Your task to perform on an android device: open app "DuckDuckGo Privacy Browser" Image 0: 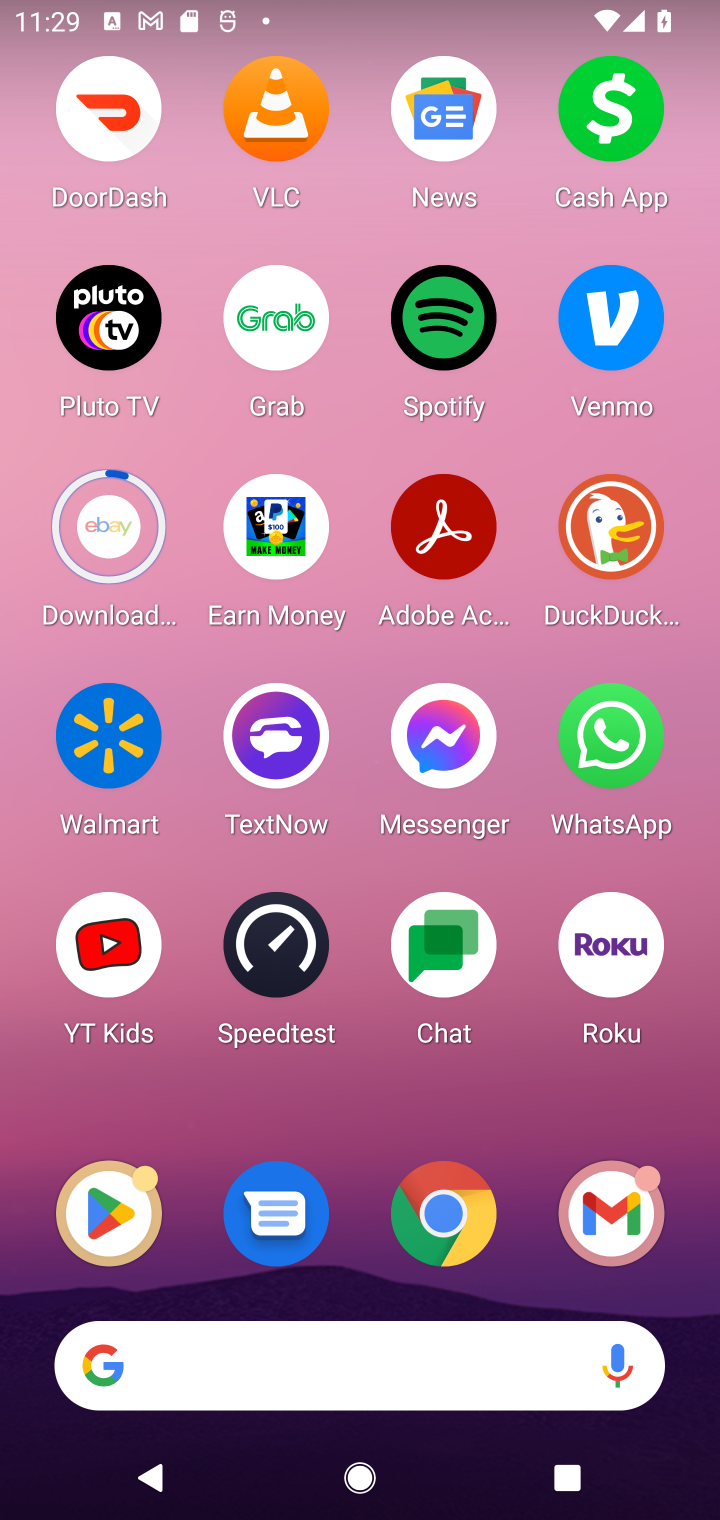
Step 0: click (123, 1193)
Your task to perform on an android device: open app "DuckDuckGo Privacy Browser" Image 1: 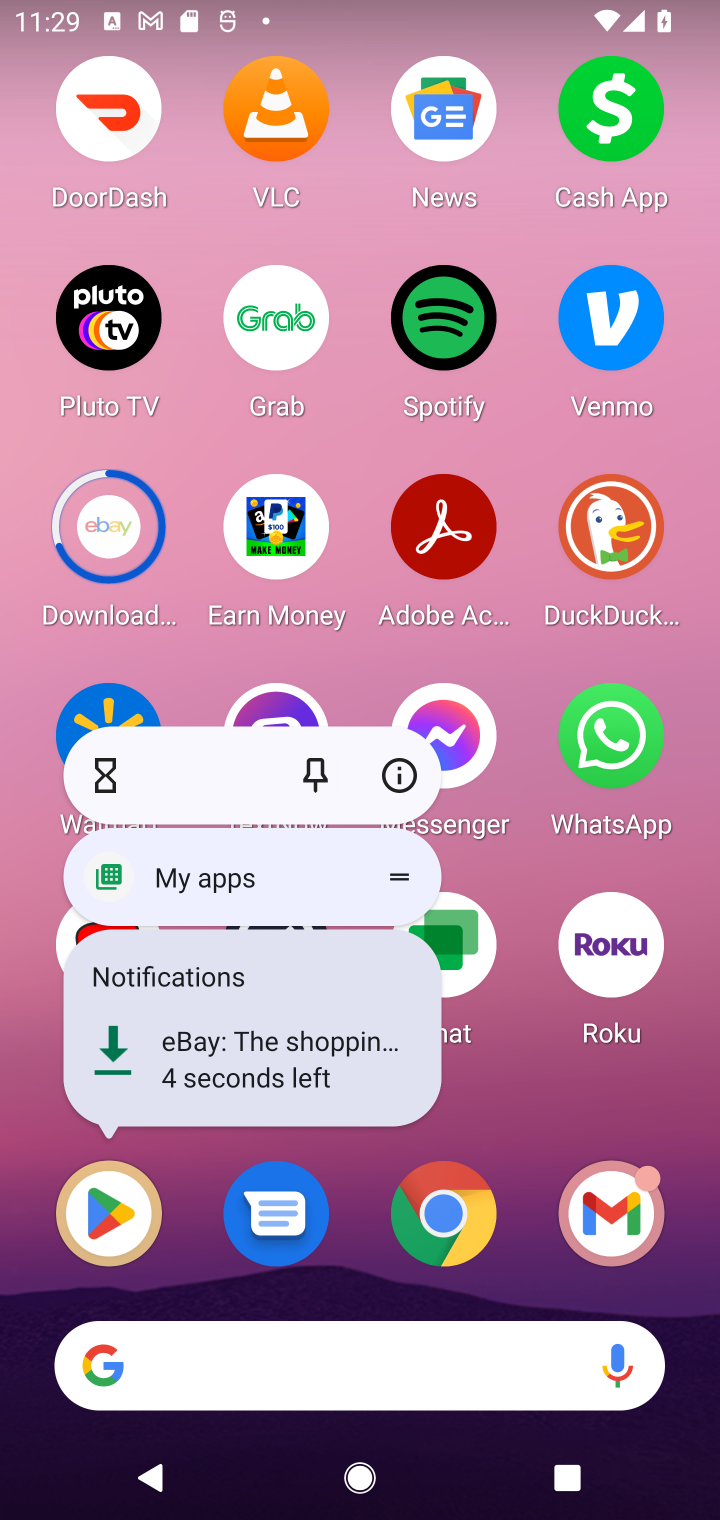
Step 1: click (99, 1213)
Your task to perform on an android device: open app "DuckDuckGo Privacy Browser" Image 2: 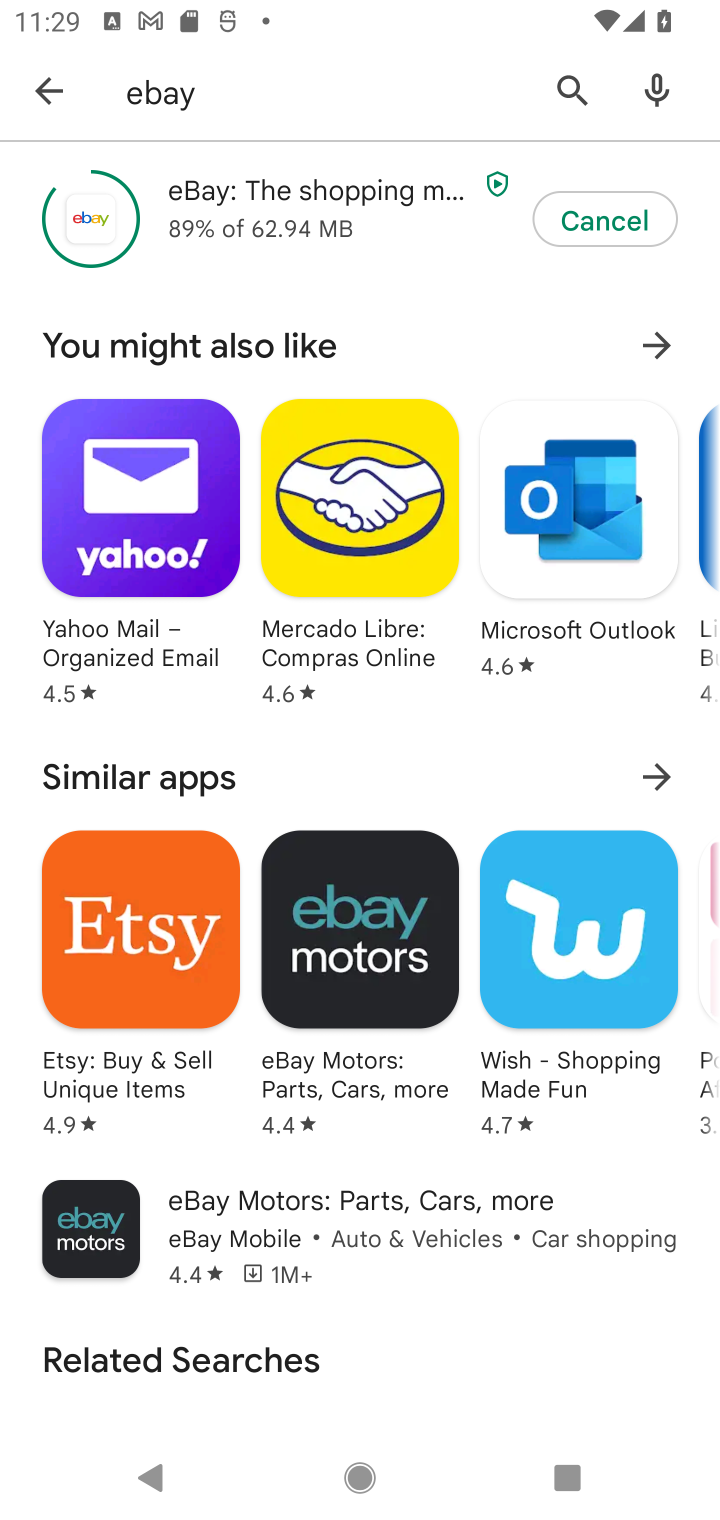
Step 2: click (53, 103)
Your task to perform on an android device: open app "DuckDuckGo Privacy Browser" Image 3: 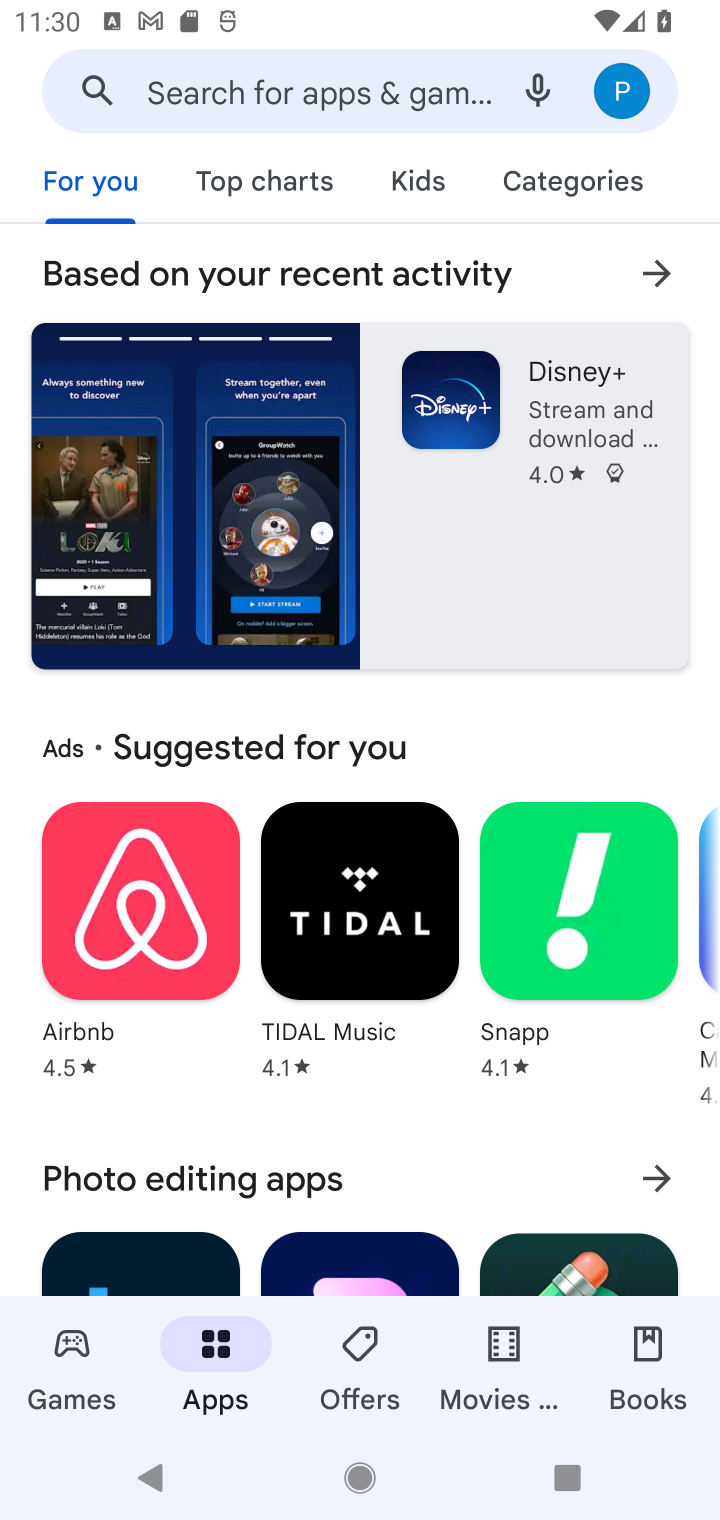
Step 3: click (320, 105)
Your task to perform on an android device: open app "DuckDuckGo Privacy Browser" Image 4: 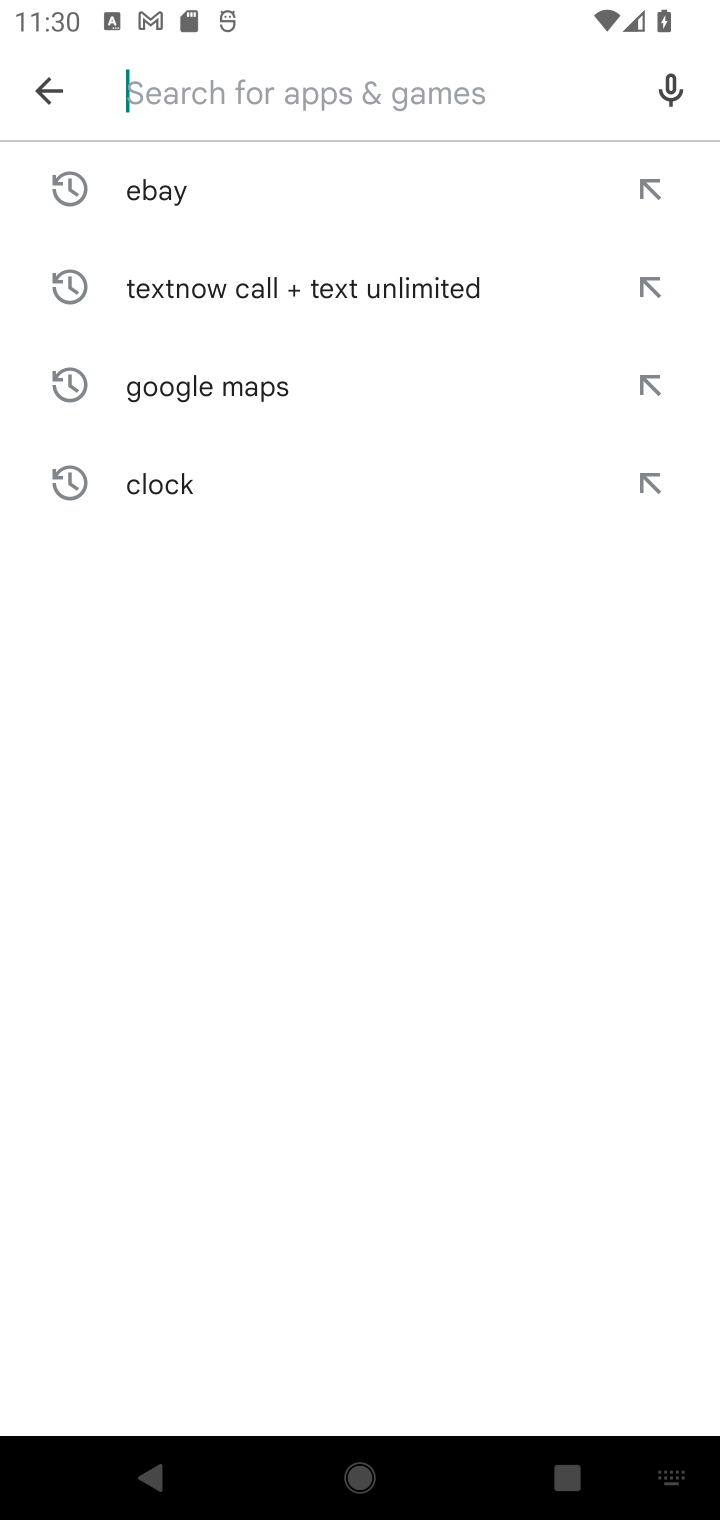
Step 4: type "DuckDuckGo Privacy Browser"
Your task to perform on an android device: open app "DuckDuckGo Privacy Browser" Image 5: 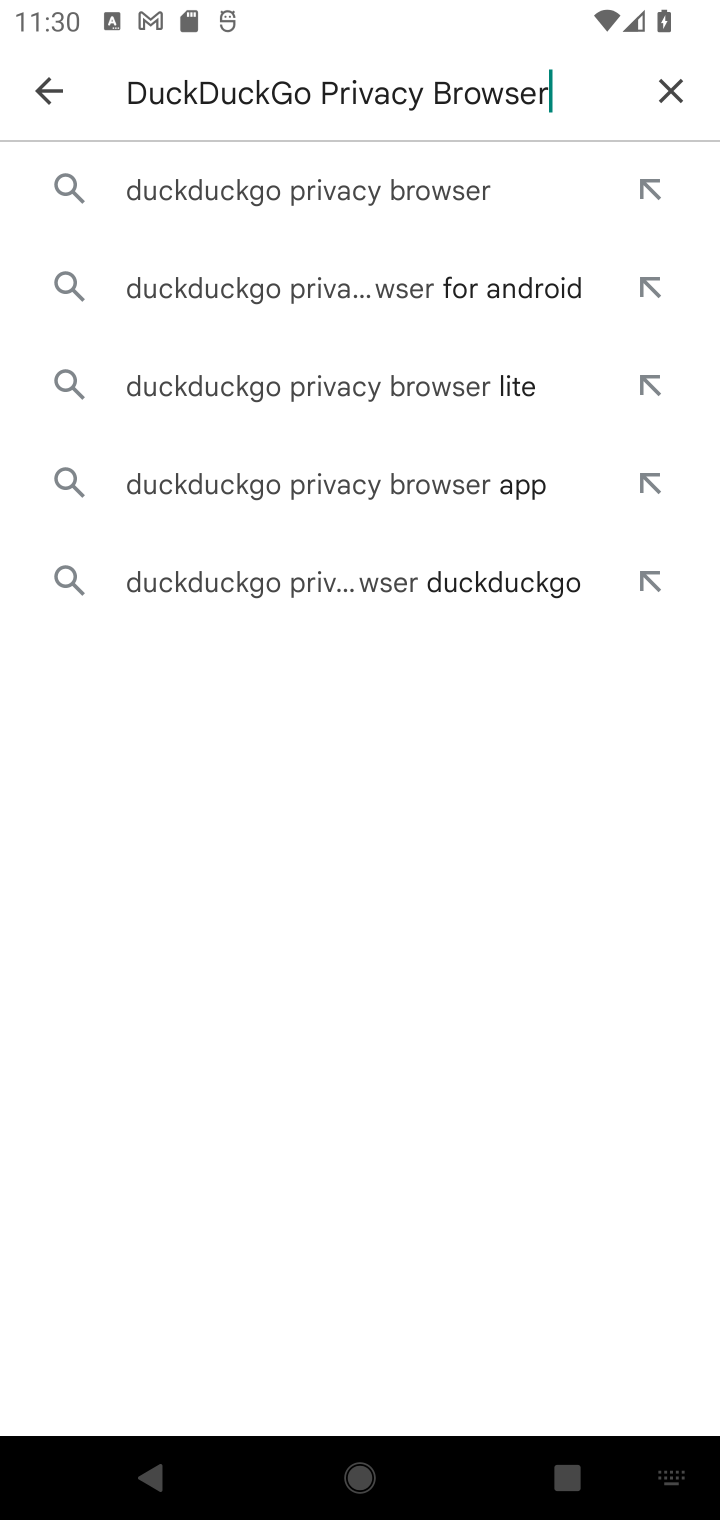
Step 5: click (260, 193)
Your task to perform on an android device: open app "DuckDuckGo Privacy Browser" Image 6: 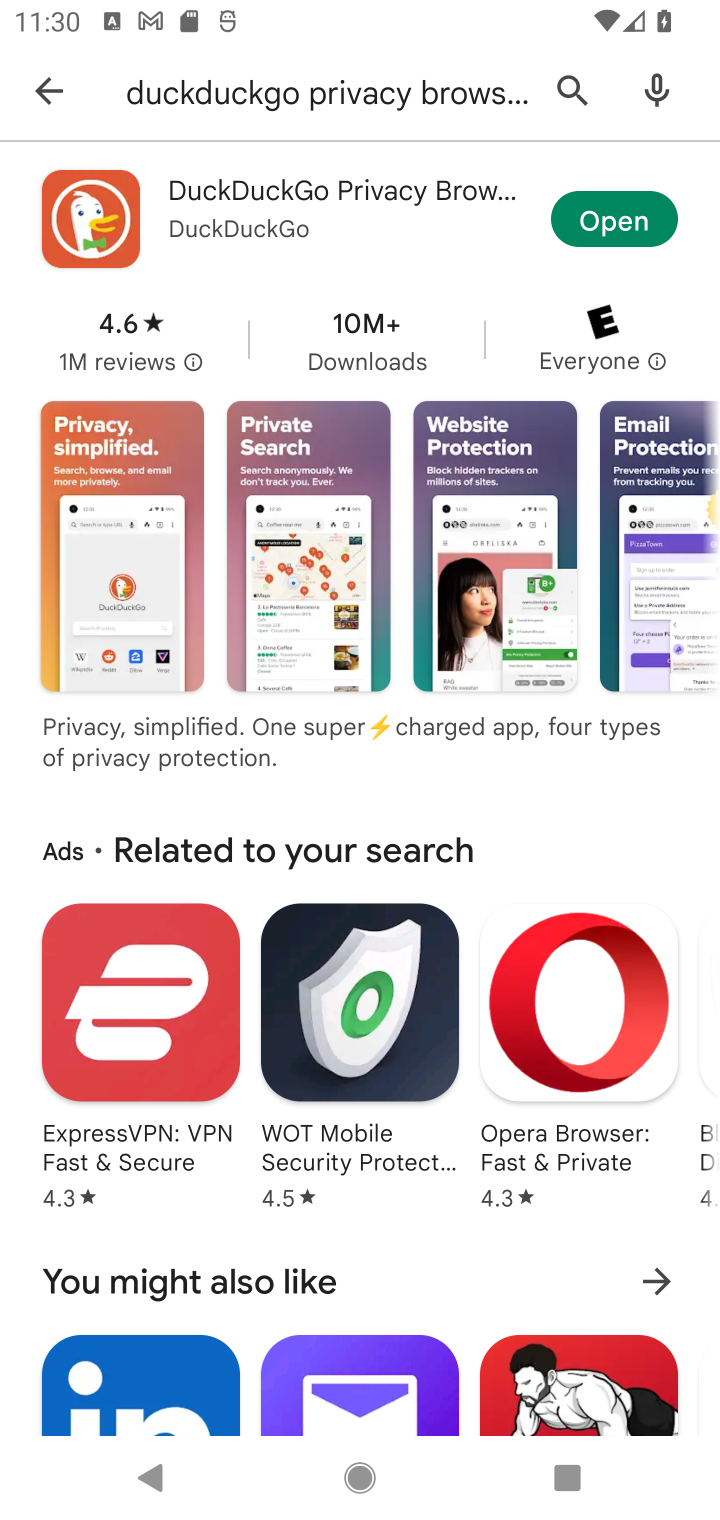
Step 6: click (619, 213)
Your task to perform on an android device: open app "DuckDuckGo Privacy Browser" Image 7: 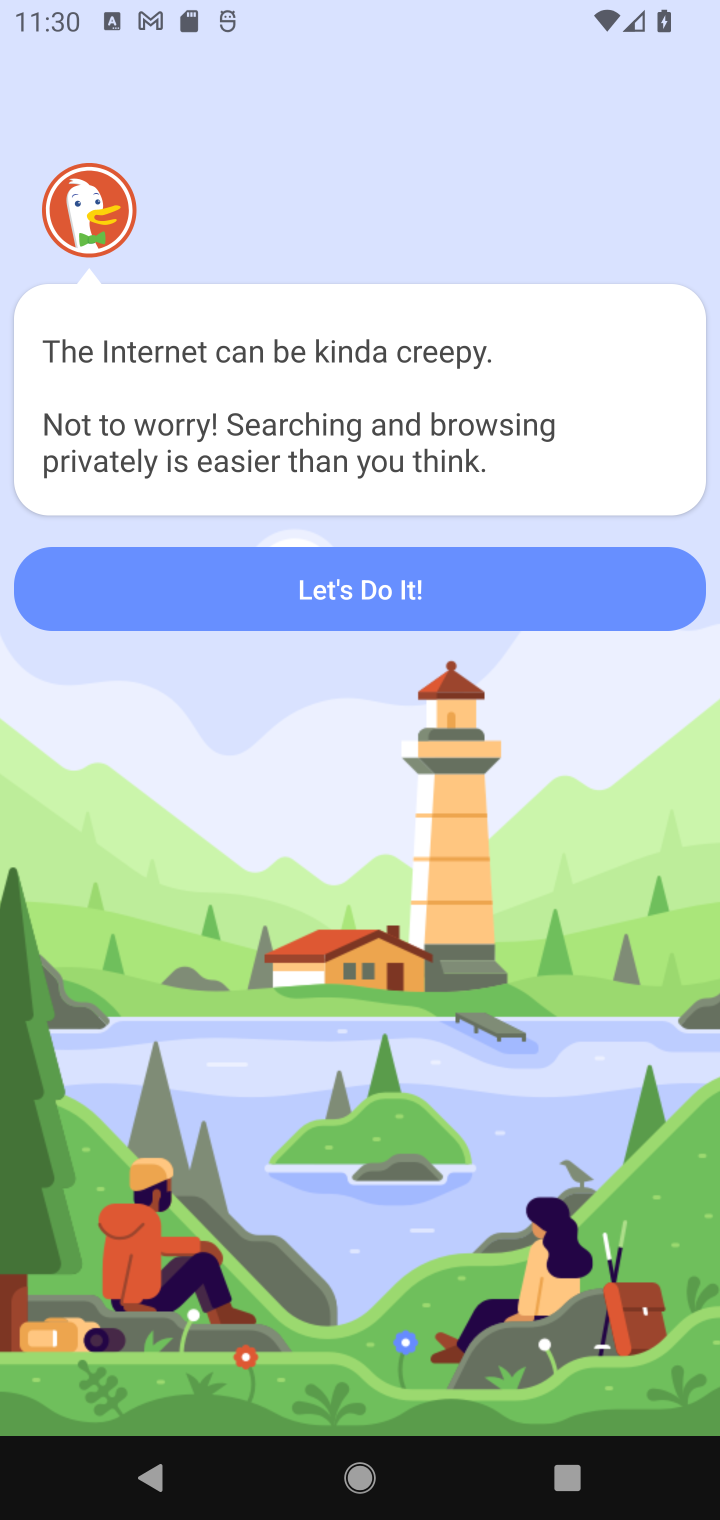
Step 7: task complete